Your task to perform on an android device: turn off location Image 0: 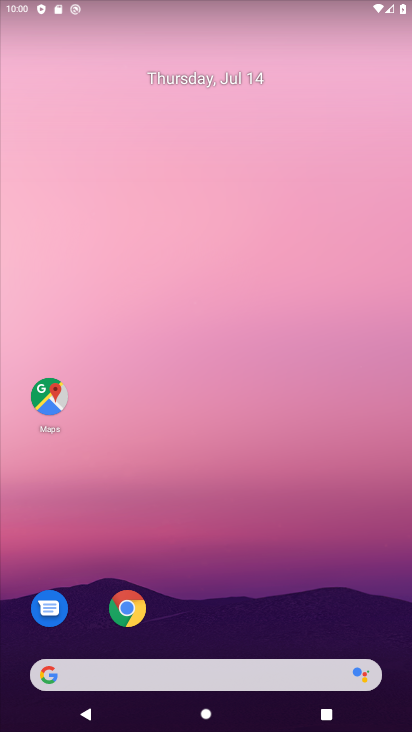
Step 0: click (183, 91)
Your task to perform on an android device: turn off location Image 1: 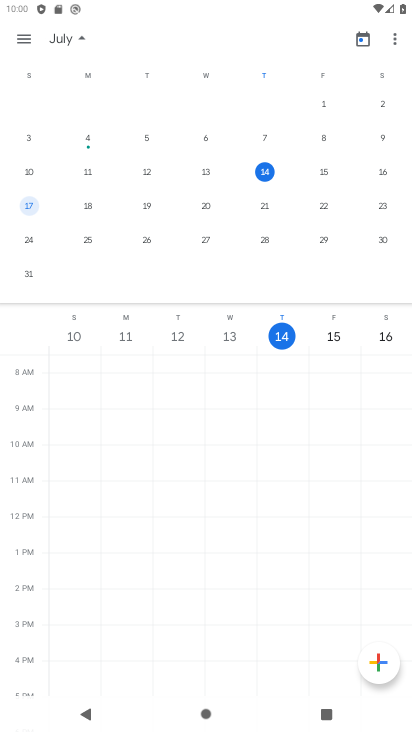
Step 1: press home button
Your task to perform on an android device: turn off location Image 2: 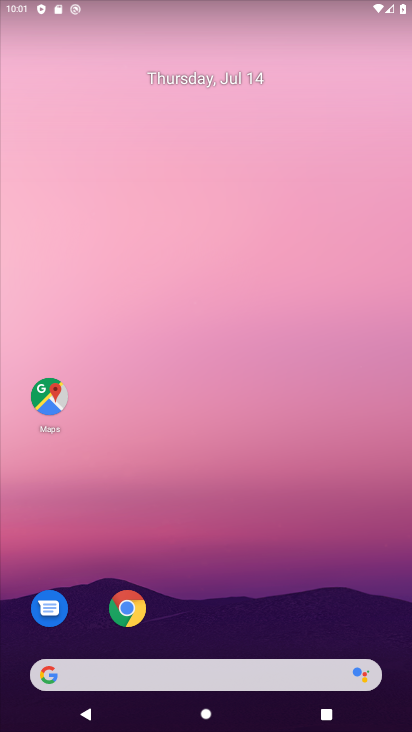
Step 2: drag from (172, 627) to (181, 23)
Your task to perform on an android device: turn off location Image 3: 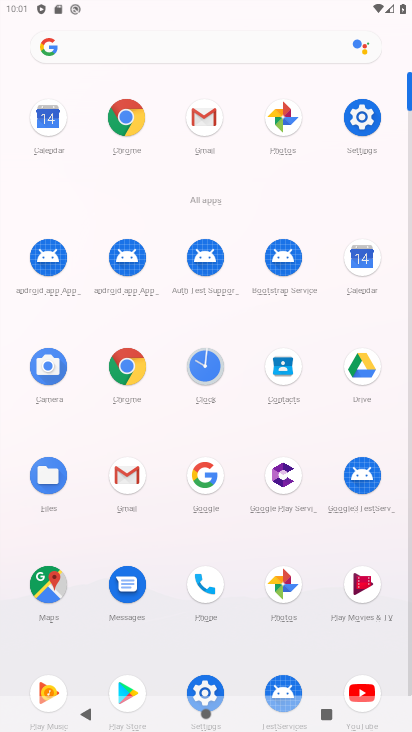
Step 3: click (369, 125)
Your task to perform on an android device: turn off location Image 4: 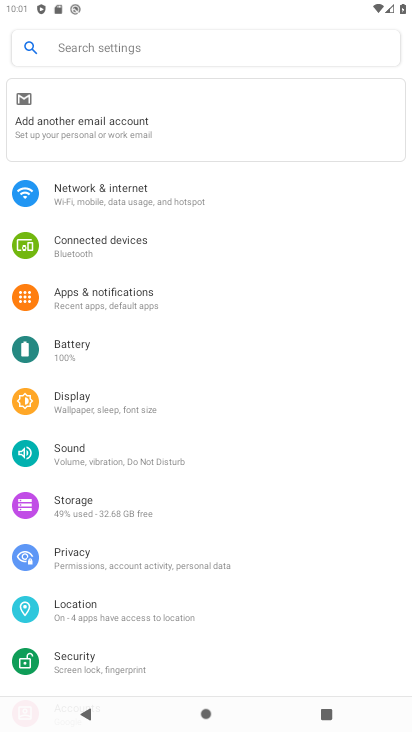
Step 4: click (84, 626)
Your task to perform on an android device: turn off location Image 5: 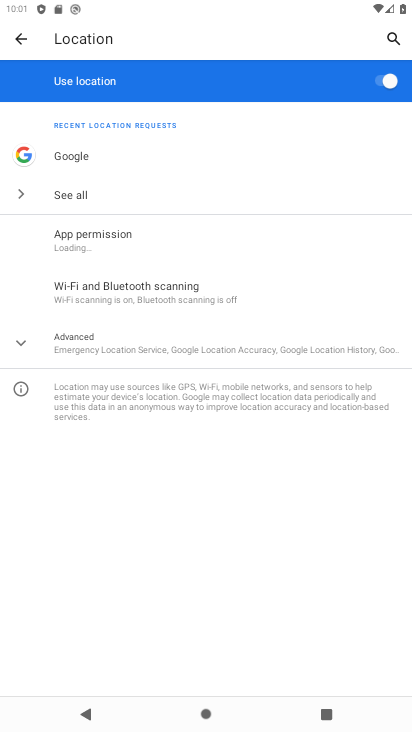
Step 5: click (108, 353)
Your task to perform on an android device: turn off location Image 6: 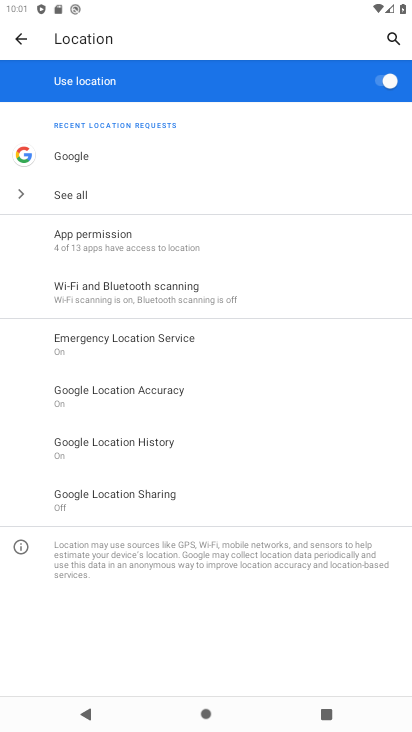
Step 6: click (376, 80)
Your task to perform on an android device: turn off location Image 7: 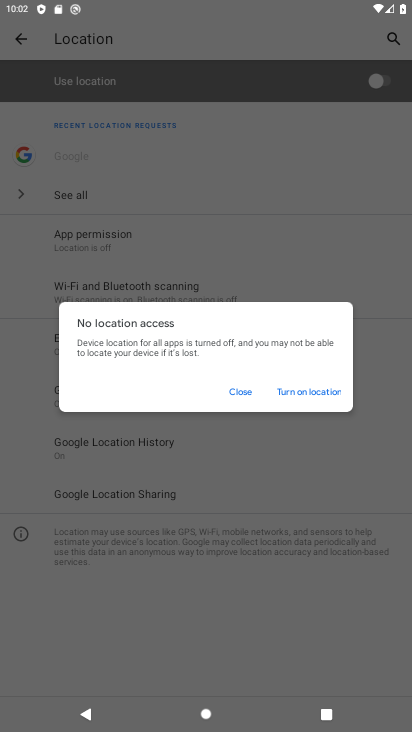
Step 7: press home button
Your task to perform on an android device: turn off location Image 8: 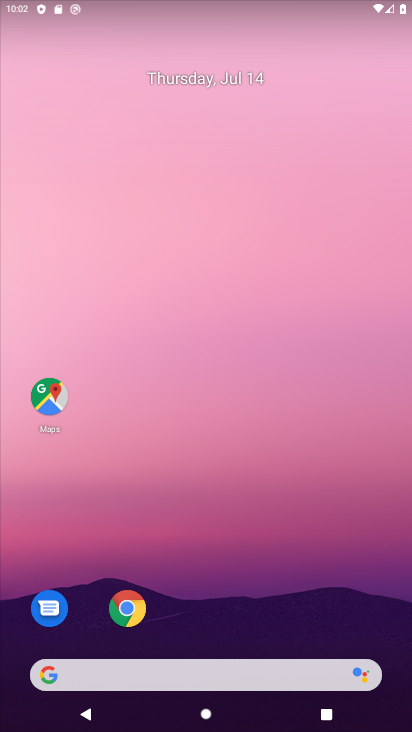
Step 8: drag from (203, 482) to (235, 117)
Your task to perform on an android device: turn off location Image 9: 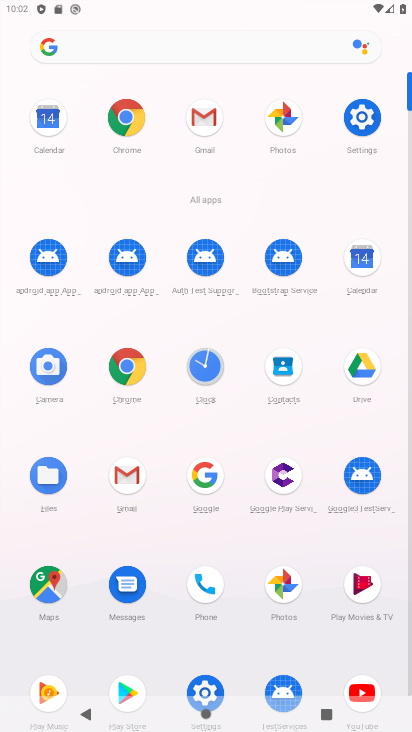
Step 9: click (364, 120)
Your task to perform on an android device: turn off location Image 10: 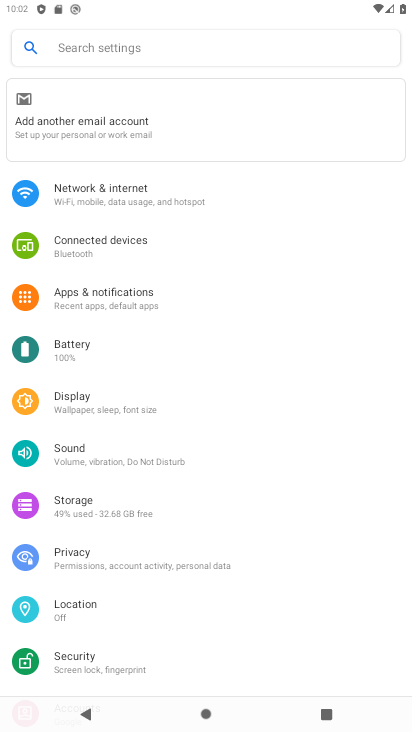
Step 10: click (82, 600)
Your task to perform on an android device: turn off location Image 11: 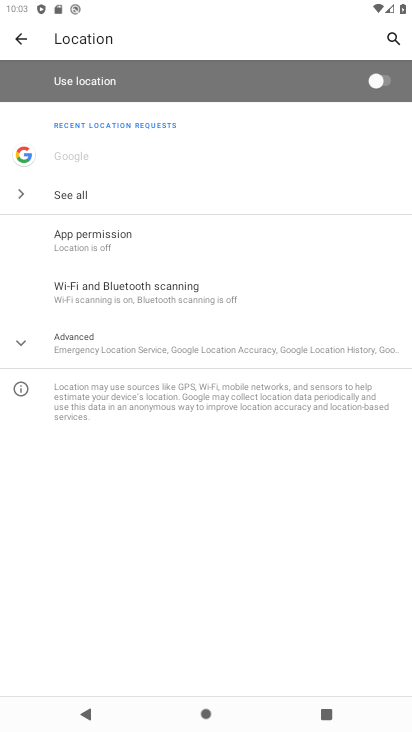
Step 11: task complete